Your task to perform on an android device: Open calendar and show me the second week of next month Image 0: 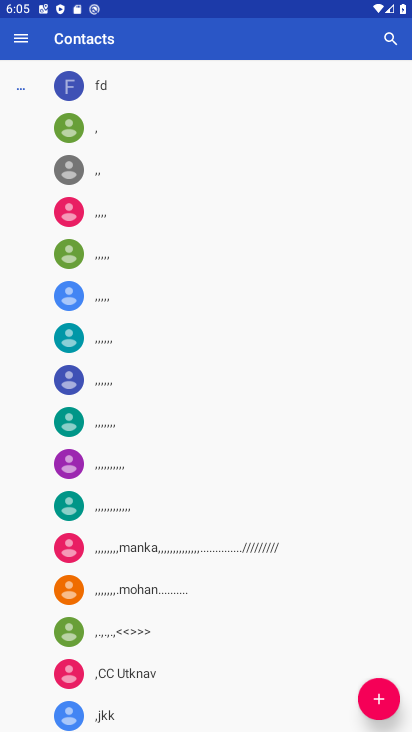
Step 0: press home button
Your task to perform on an android device: Open calendar and show me the second week of next month Image 1: 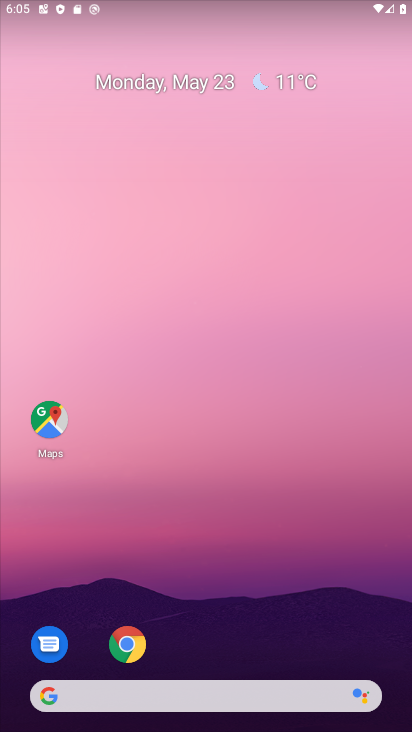
Step 1: drag from (234, 610) to (214, 285)
Your task to perform on an android device: Open calendar and show me the second week of next month Image 2: 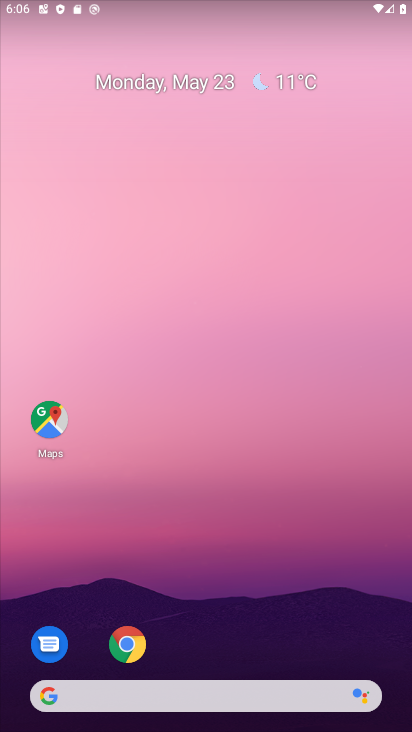
Step 2: drag from (216, 610) to (188, 252)
Your task to perform on an android device: Open calendar and show me the second week of next month Image 3: 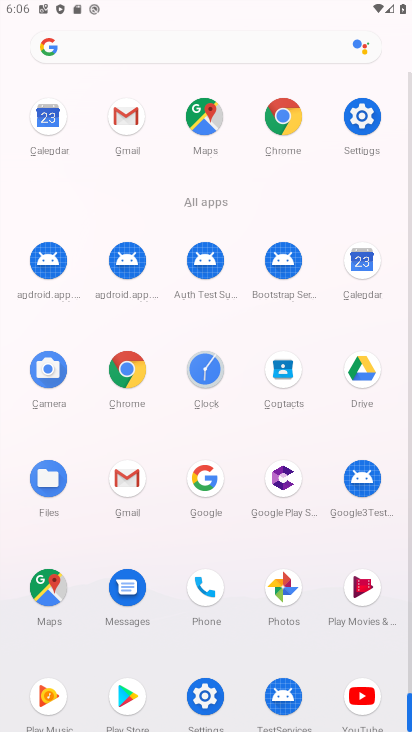
Step 3: click (360, 279)
Your task to perform on an android device: Open calendar and show me the second week of next month Image 4: 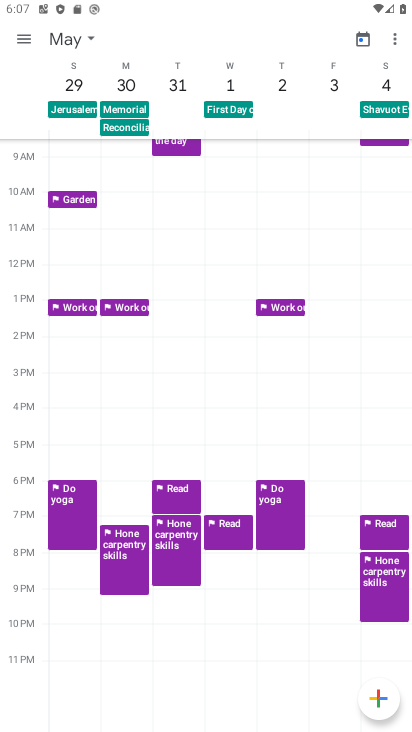
Step 4: click (74, 44)
Your task to perform on an android device: Open calendar and show me the second week of next month Image 5: 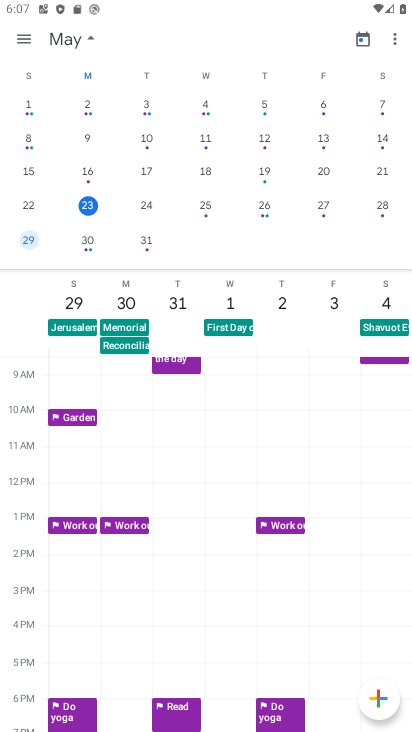
Step 5: drag from (335, 179) to (30, 182)
Your task to perform on an android device: Open calendar and show me the second week of next month Image 6: 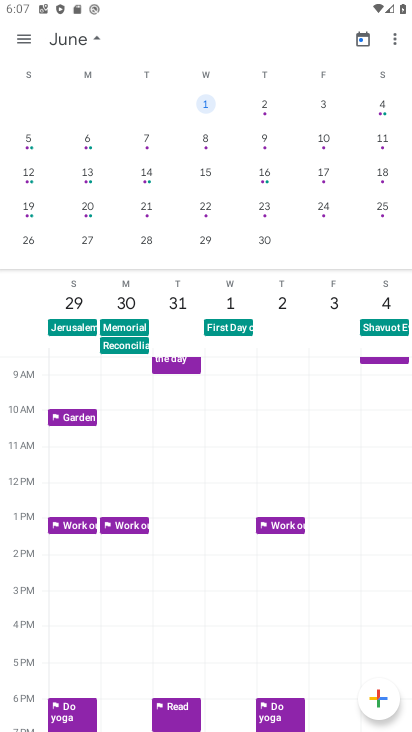
Step 6: click (28, 178)
Your task to perform on an android device: Open calendar and show me the second week of next month Image 7: 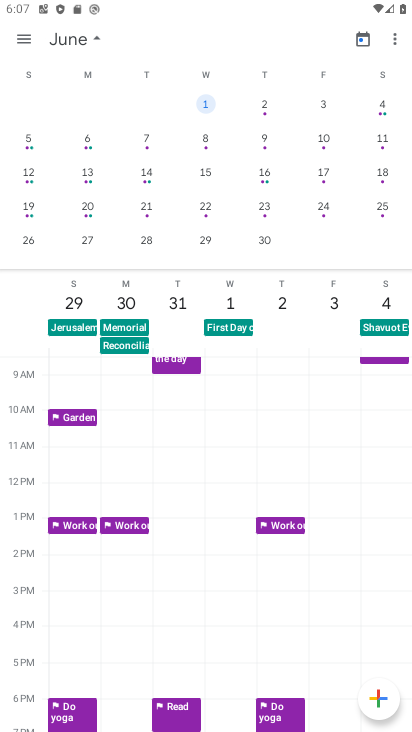
Step 7: click (28, 178)
Your task to perform on an android device: Open calendar and show me the second week of next month Image 8: 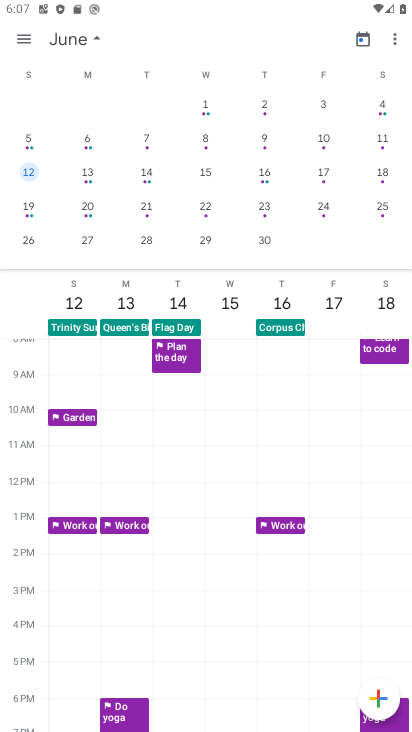
Step 8: task complete